Your task to perform on an android device: Go to CNN.com Image 0: 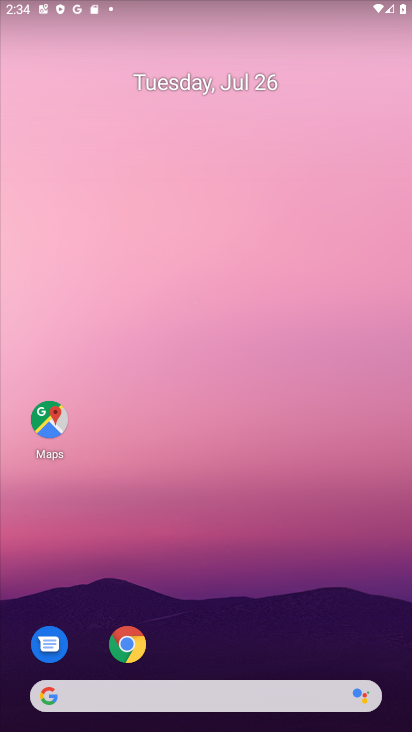
Step 0: drag from (211, 662) to (124, 57)
Your task to perform on an android device: Go to CNN.com Image 1: 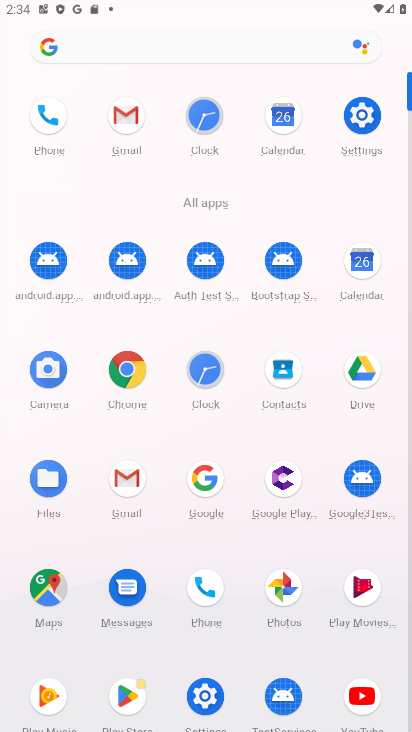
Step 1: click (141, 368)
Your task to perform on an android device: Go to CNN.com Image 2: 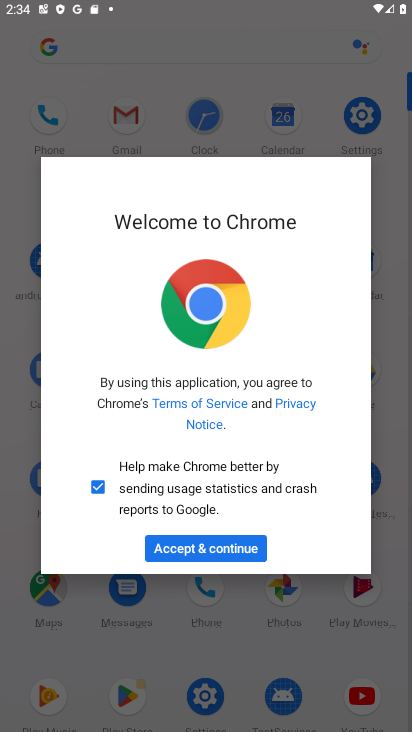
Step 2: click (201, 552)
Your task to perform on an android device: Go to CNN.com Image 3: 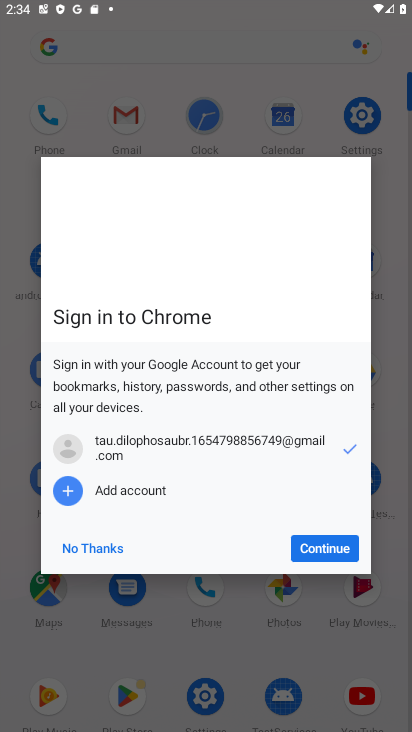
Step 3: click (325, 533)
Your task to perform on an android device: Go to CNN.com Image 4: 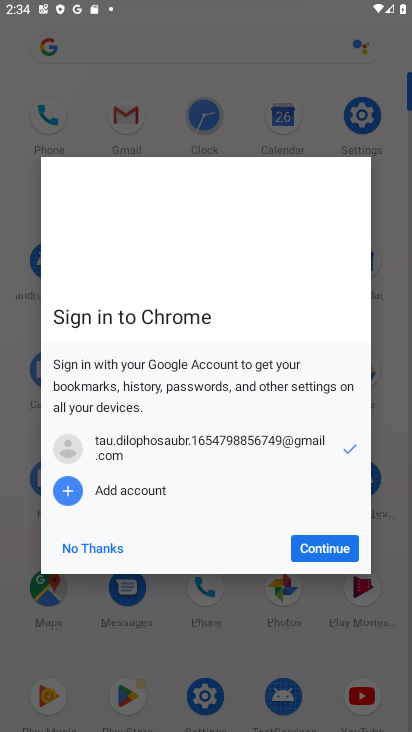
Step 4: click (312, 562)
Your task to perform on an android device: Go to CNN.com Image 5: 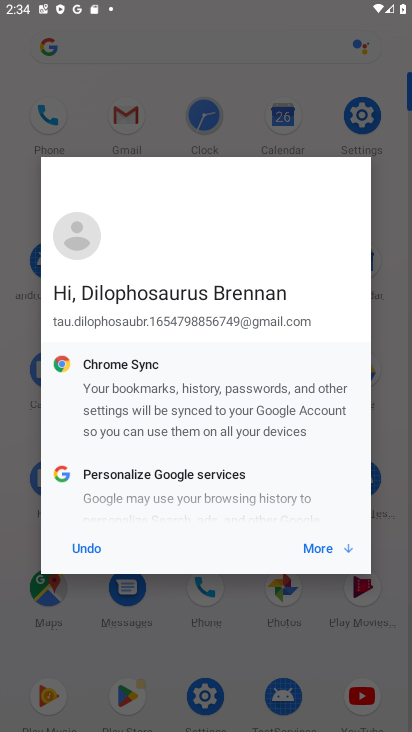
Step 5: click (314, 557)
Your task to perform on an android device: Go to CNN.com Image 6: 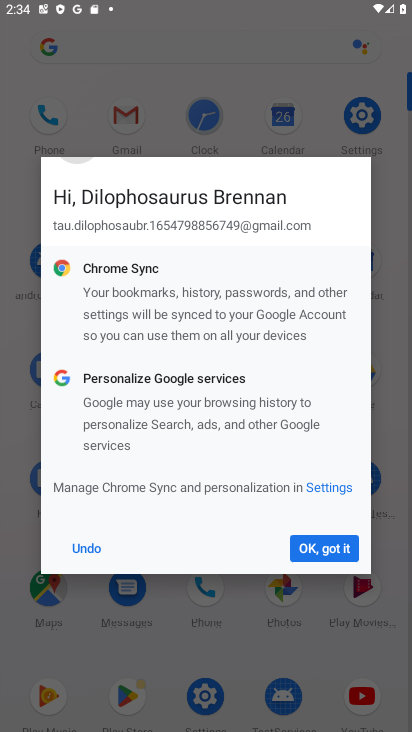
Step 6: click (305, 554)
Your task to perform on an android device: Go to CNN.com Image 7: 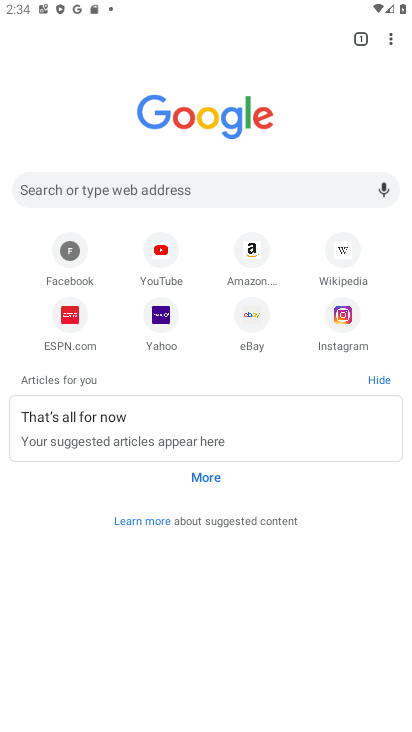
Step 7: type " CNN.com"
Your task to perform on an android device: Go to CNN.com Image 8: 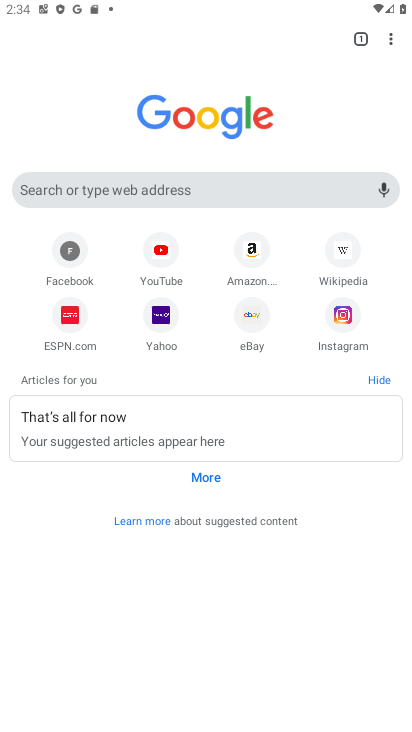
Step 8: click (148, 180)
Your task to perform on an android device: Go to CNN.com Image 9: 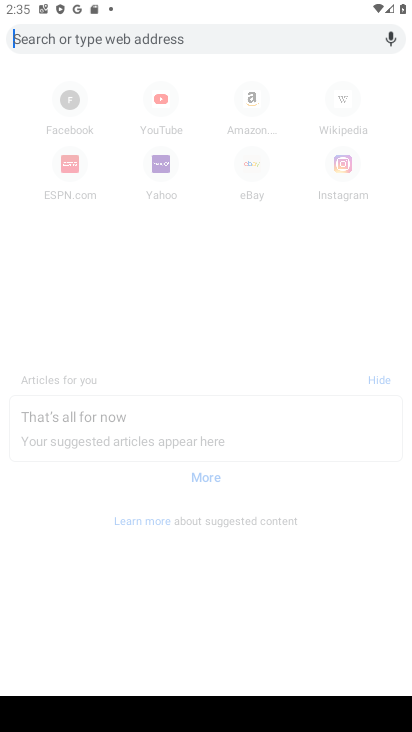
Step 9: type "CNN.com"
Your task to perform on an android device: Go to CNN.com Image 10: 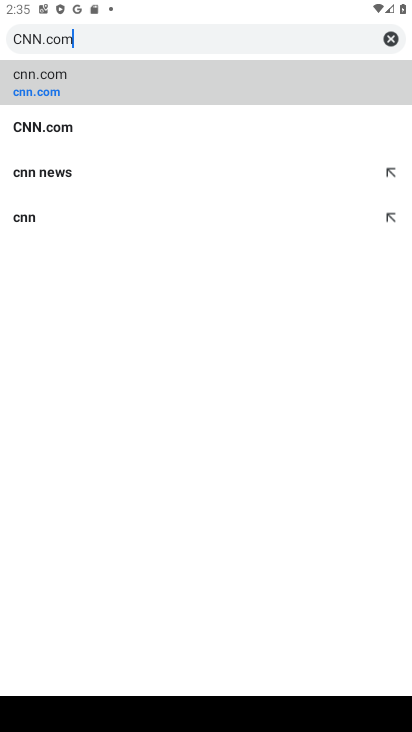
Step 10: type ""
Your task to perform on an android device: Go to CNN.com Image 11: 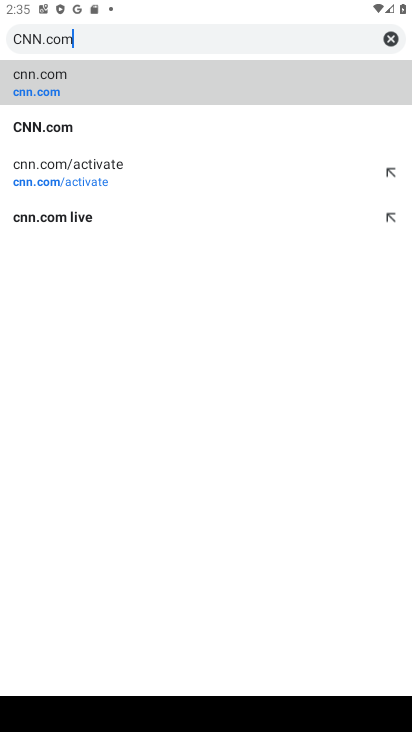
Step 11: click (47, 83)
Your task to perform on an android device: Go to CNN.com Image 12: 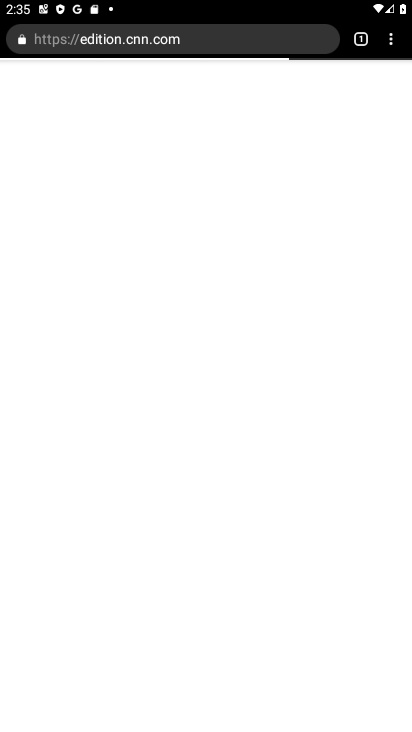
Step 12: task complete